Your task to perform on an android device: turn off picture-in-picture Image 0: 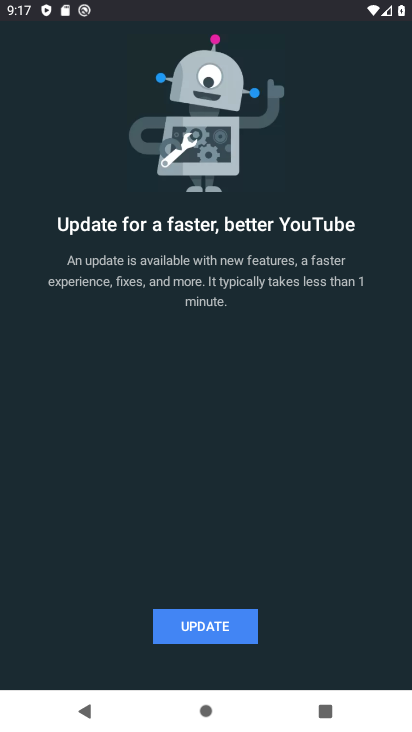
Step 0: press home button
Your task to perform on an android device: turn off picture-in-picture Image 1: 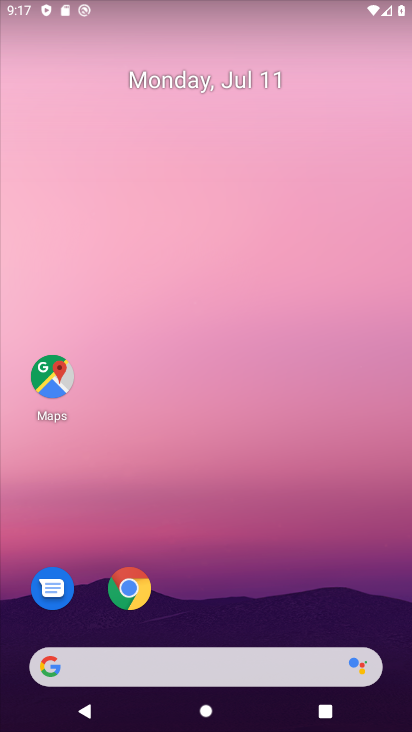
Step 1: click (141, 590)
Your task to perform on an android device: turn off picture-in-picture Image 2: 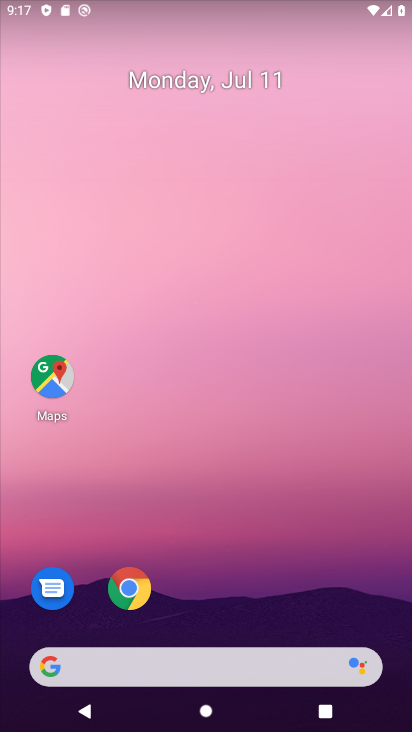
Step 2: click (137, 583)
Your task to perform on an android device: turn off picture-in-picture Image 3: 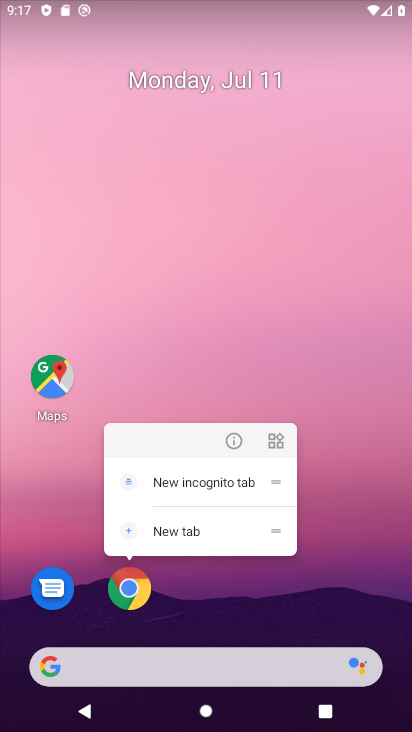
Step 3: click (236, 441)
Your task to perform on an android device: turn off picture-in-picture Image 4: 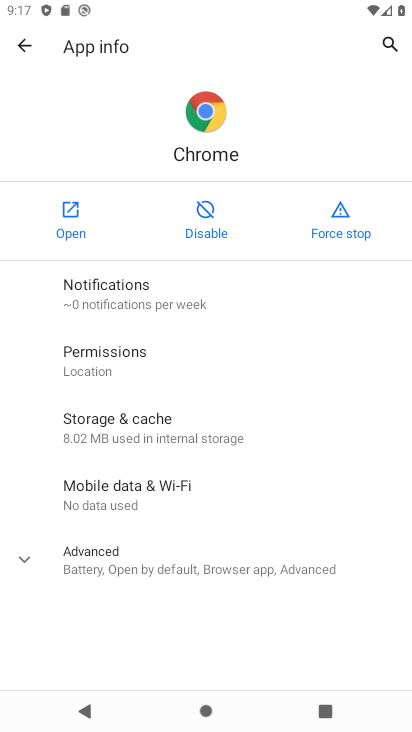
Step 4: click (155, 556)
Your task to perform on an android device: turn off picture-in-picture Image 5: 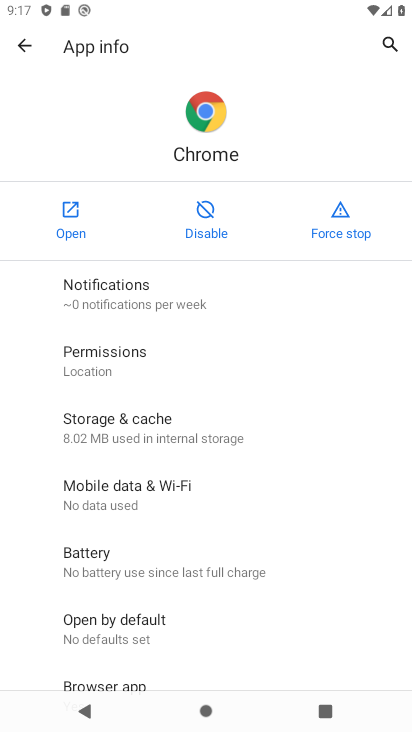
Step 5: drag from (141, 597) to (129, 224)
Your task to perform on an android device: turn off picture-in-picture Image 6: 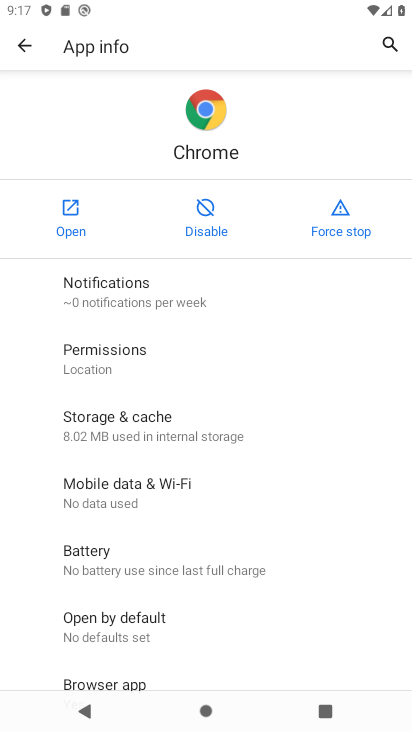
Step 6: drag from (146, 565) to (166, 89)
Your task to perform on an android device: turn off picture-in-picture Image 7: 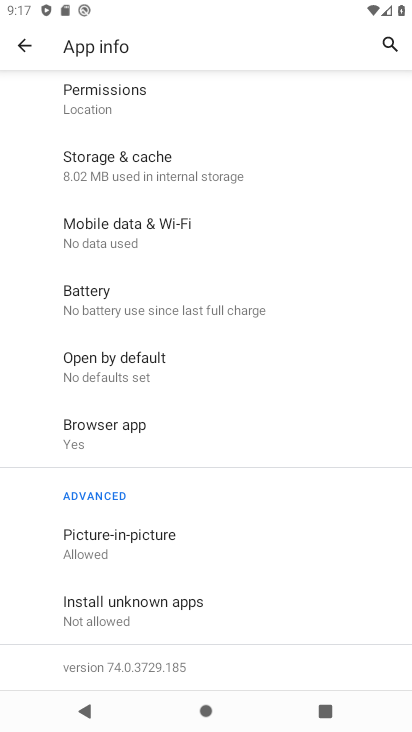
Step 7: click (159, 543)
Your task to perform on an android device: turn off picture-in-picture Image 8: 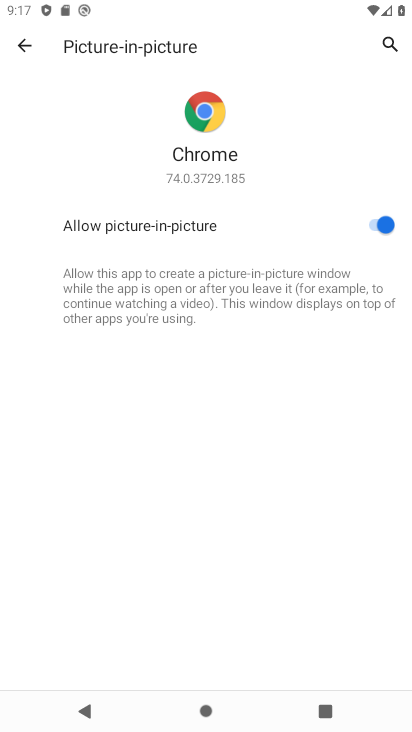
Step 8: click (367, 227)
Your task to perform on an android device: turn off picture-in-picture Image 9: 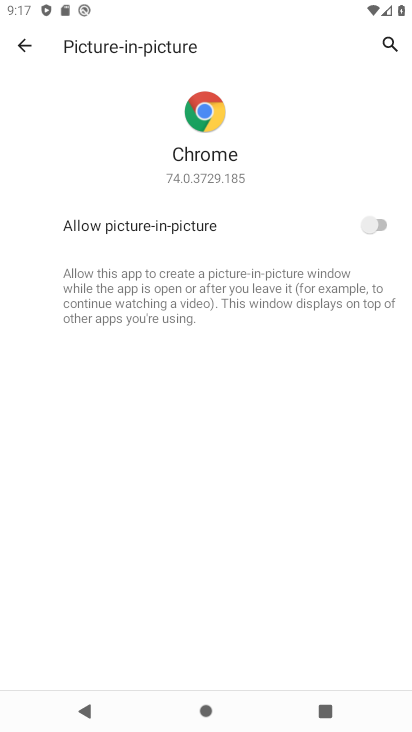
Step 9: task complete